Your task to perform on an android device: Open notification settings Image 0: 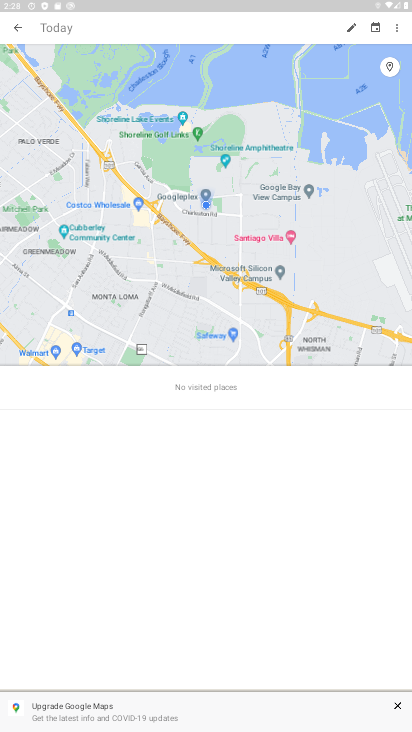
Step 0: press home button
Your task to perform on an android device: Open notification settings Image 1: 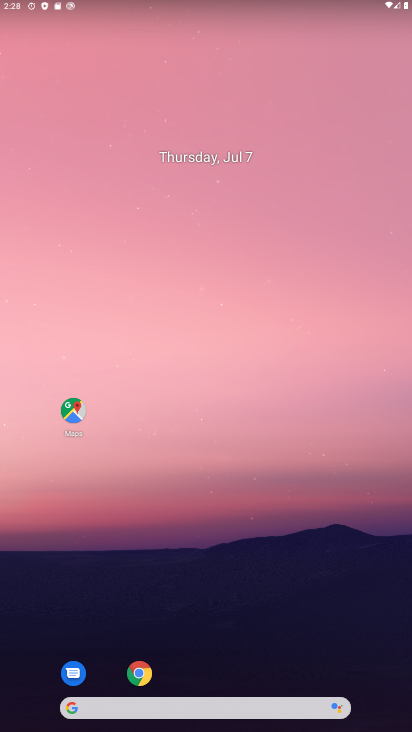
Step 1: drag from (216, 667) to (355, 200)
Your task to perform on an android device: Open notification settings Image 2: 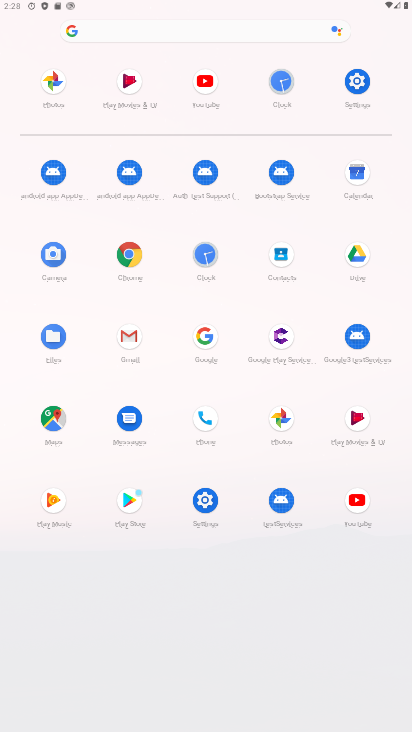
Step 2: click (209, 494)
Your task to perform on an android device: Open notification settings Image 3: 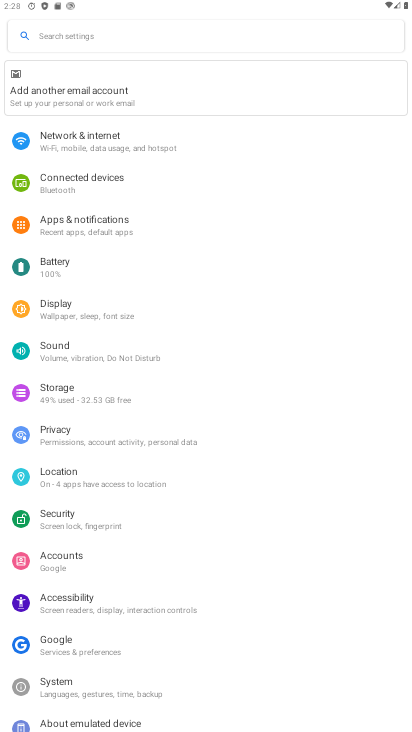
Step 3: click (76, 229)
Your task to perform on an android device: Open notification settings Image 4: 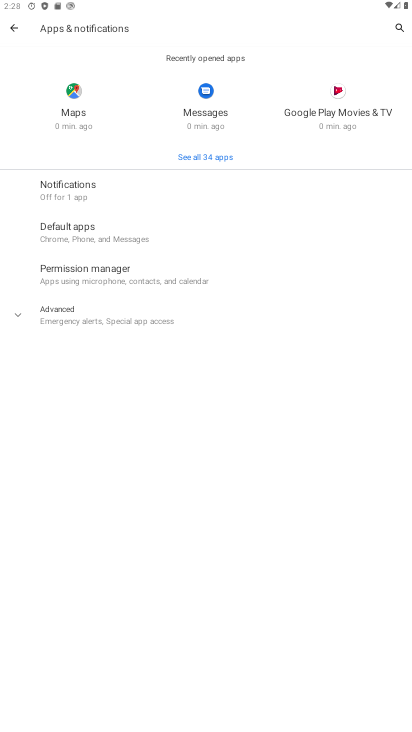
Step 4: click (68, 187)
Your task to perform on an android device: Open notification settings Image 5: 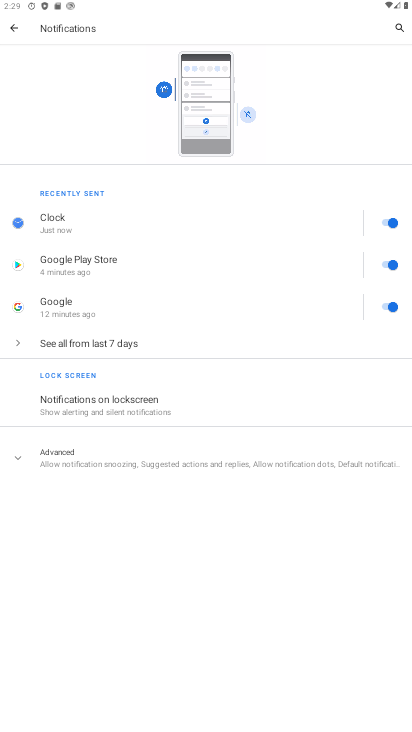
Step 5: task complete